Your task to perform on an android device: Go to calendar. Show me events next week Image 0: 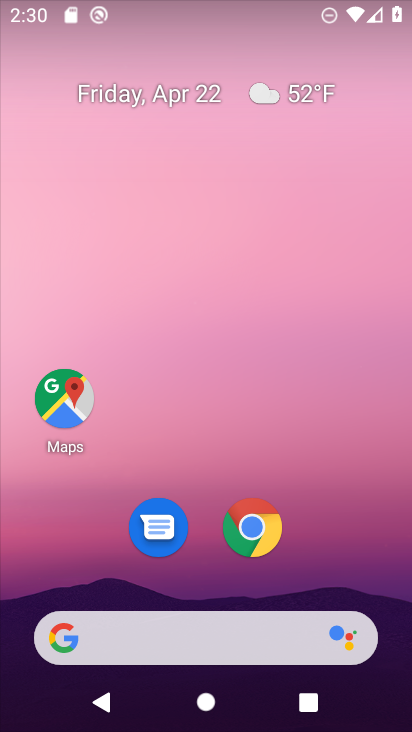
Step 0: drag from (367, 573) to (271, 26)
Your task to perform on an android device: Go to calendar. Show me events next week Image 1: 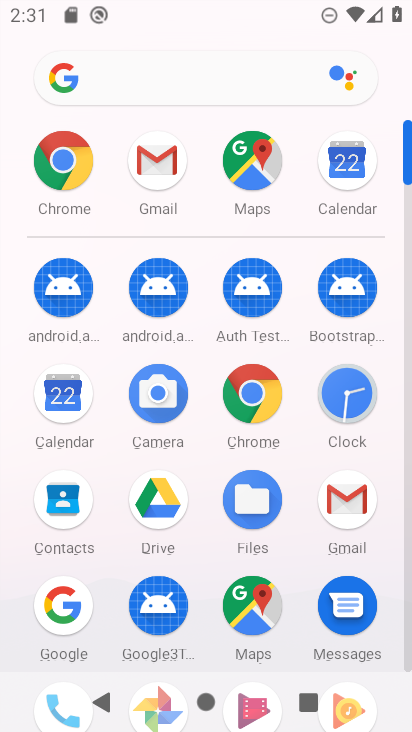
Step 1: click (66, 385)
Your task to perform on an android device: Go to calendar. Show me events next week Image 2: 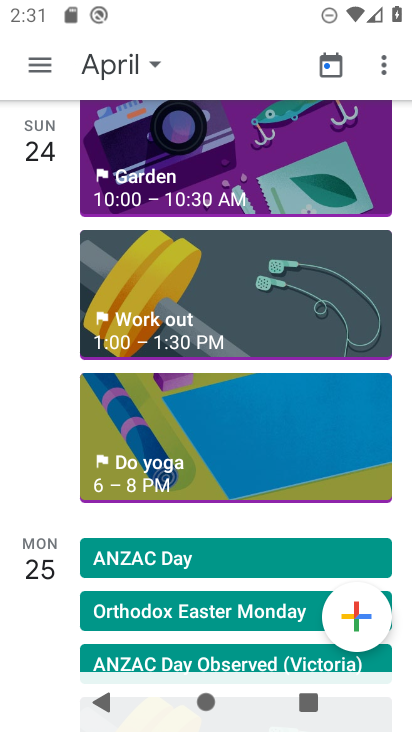
Step 2: click (144, 69)
Your task to perform on an android device: Go to calendar. Show me events next week Image 3: 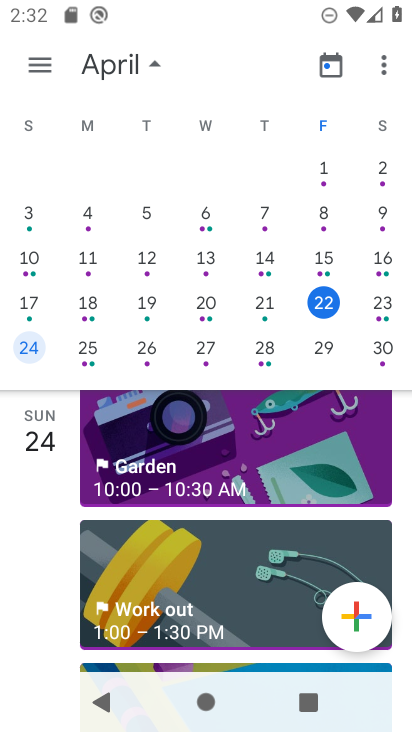
Step 3: click (312, 342)
Your task to perform on an android device: Go to calendar. Show me events next week Image 4: 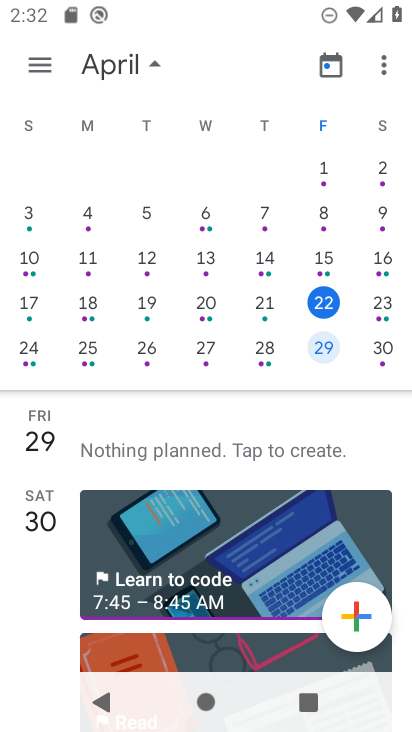
Step 4: task complete